Your task to perform on an android device: Open Yahoo.com Image 0: 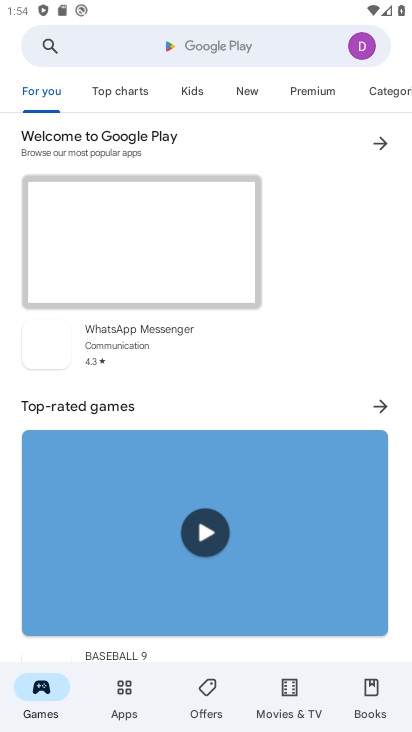
Step 0: press home button
Your task to perform on an android device: Open Yahoo.com Image 1: 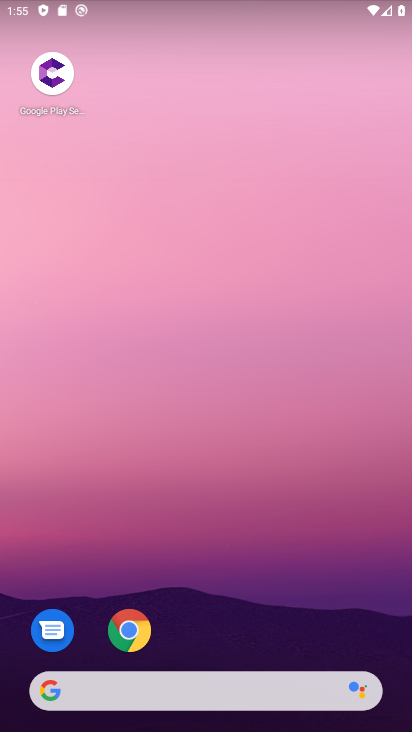
Step 1: click (120, 632)
Your task to perform on an android device: Open Yahoo.com Image 2: 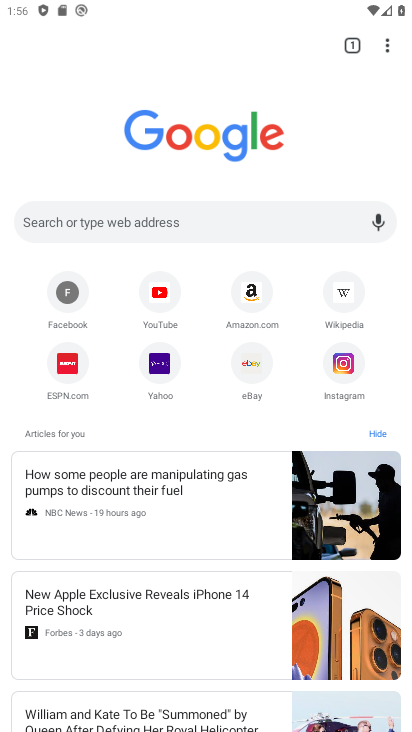
Step 2: click (161, 356)
Your task to perform on an android device: Open Yahoo.com Image 3: 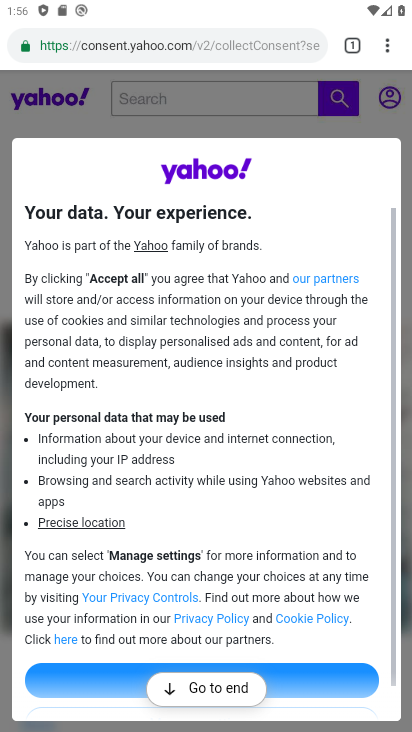
Step 3: task complete